Your task to perform on an android device: change the clock display to show seconds Image 0: 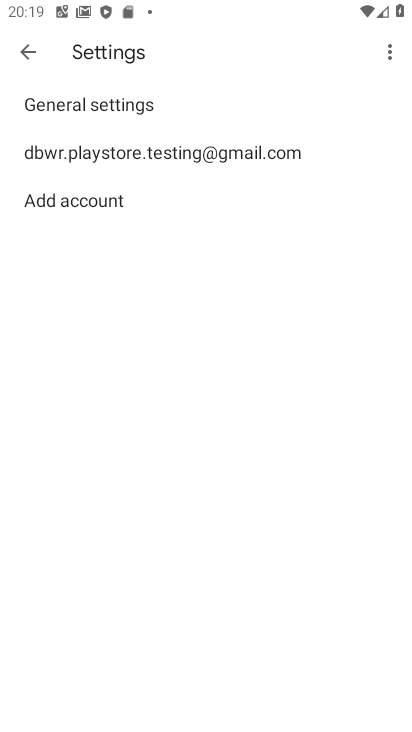
Step 0: task complete